Your task to perform on an android device: Open the map Image 0: 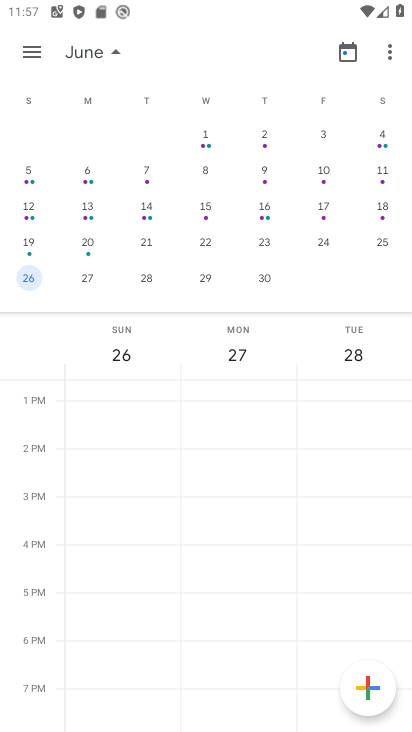
Step 0: press home button
Your task to perform on an android device: Open the map Image 1: 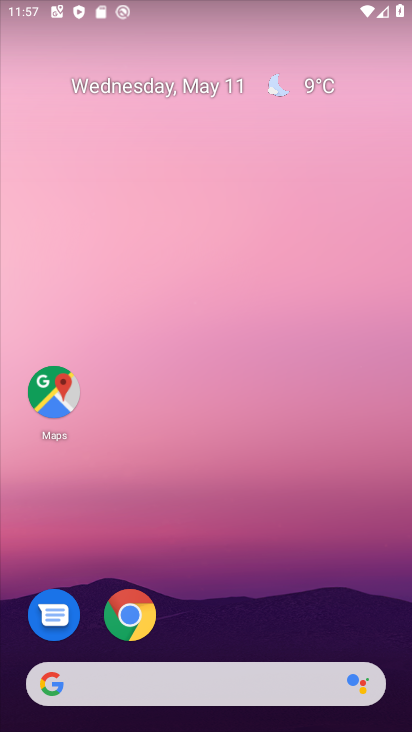
Step 1: click (53, 385)
Your task to perform on an android device: Open the map Image 2: 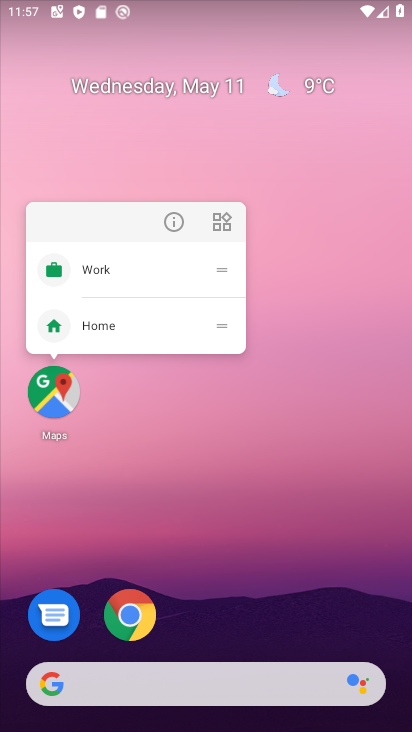
Step 2: click (57, 397)
Your task to perform on an android device: Open the map Image 3: 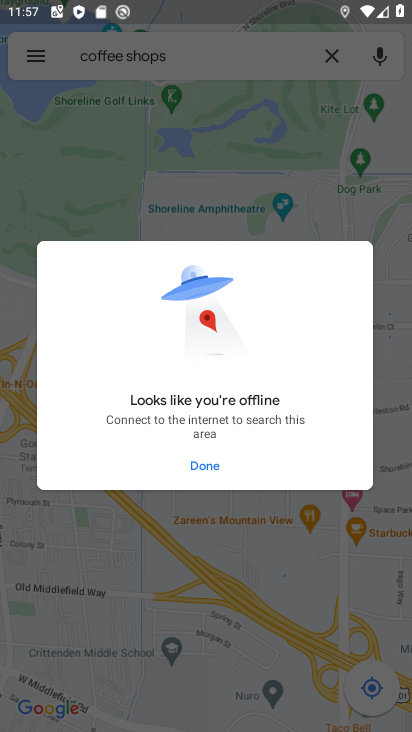
Step 3: task complete